Your task to perform on an android device: see tabs open on other devices in the chrome app Image 0: 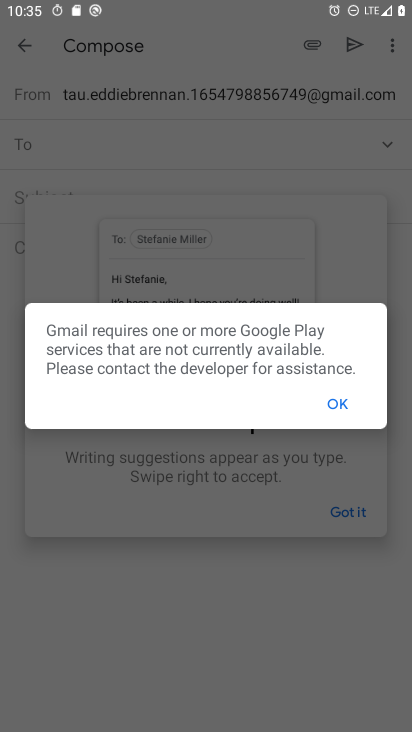
Step 0: press home button
Your task to perform on an android device: see tabs open on other devices in the chrome app Image 1: 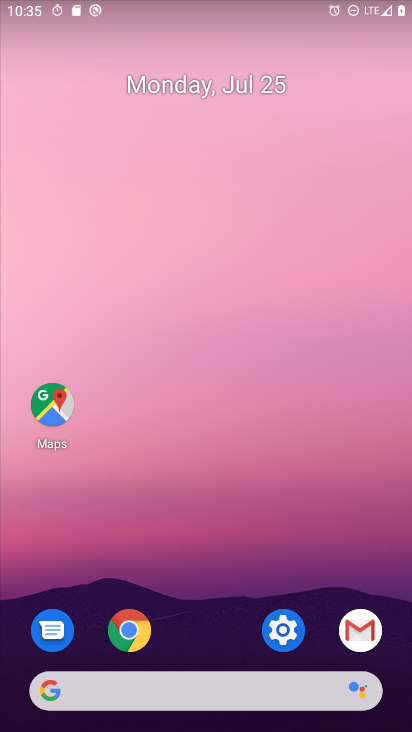
Step 1: click (127, 620)
Your task to perform on an android device: see tabs open on other devices in the chrome app Image 2: 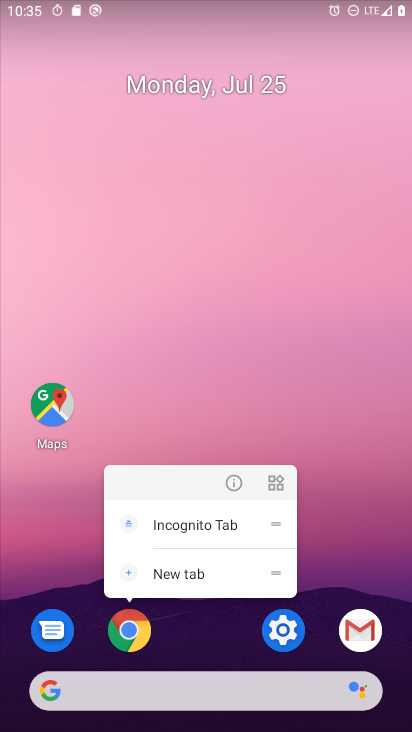
Step 2: click (139, 627)
Your task to perform on an android device: see tabs open on other devices in the chrome app Image 3: 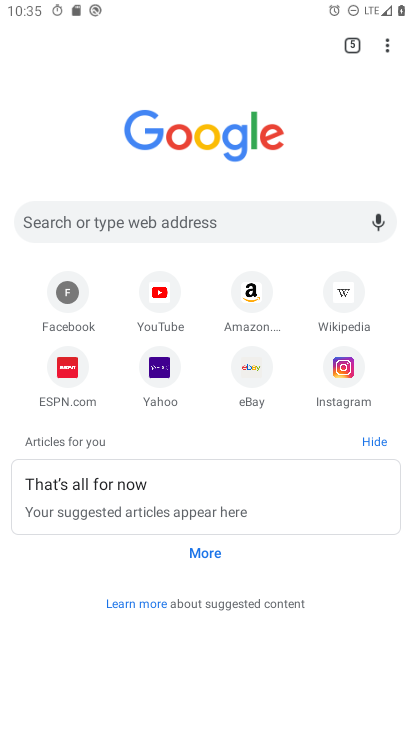
Step 3: click (345, 55)
Your task to perform on an android device: see tabs open on other devices in the chrome app Image 4: 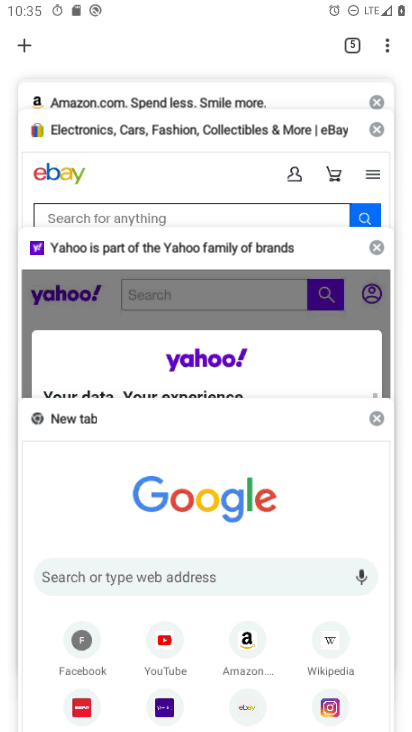
Step 4: click (25, 41)
Your task to perform on an android device: see tabs open on other devices in the chrome app Image 5: 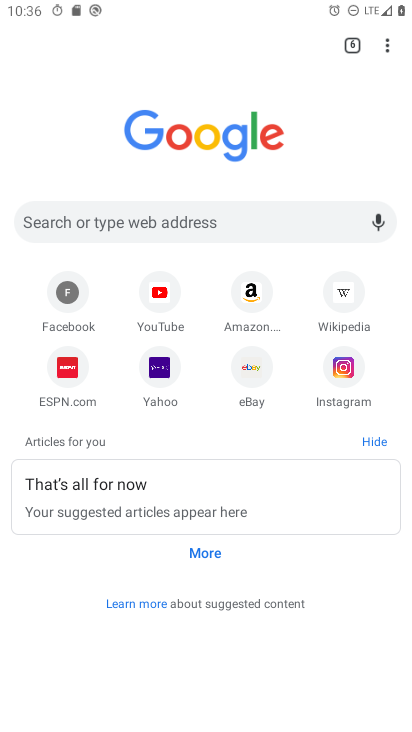
Step 5: task complete